Your task to perform on an android device: Do I have any events this weekend? Image 0: 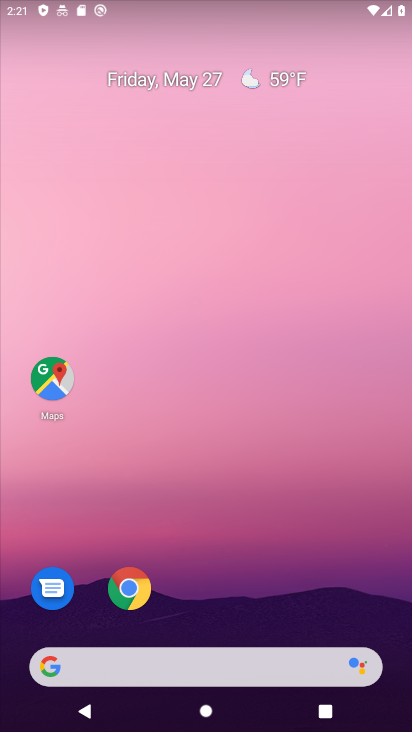
Step 0: drag from (270, 698) to (223, 307)
Your task to perform on an android device: Do I have any events this weekend? Image 1: 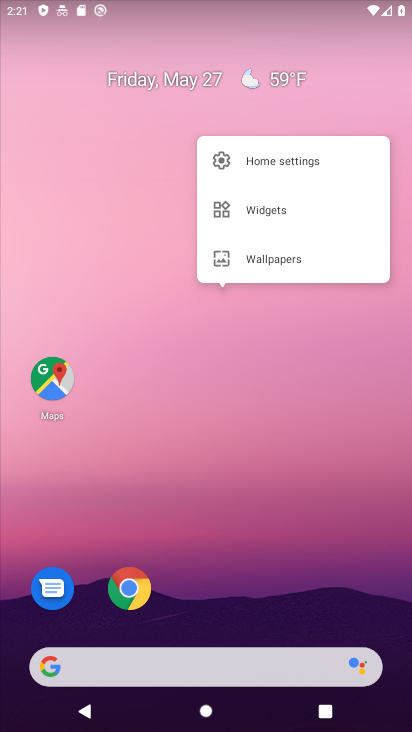
Step 1: click (164, 425)
Your task to perform on an android device: Do I have any events this weekend? Image 2: 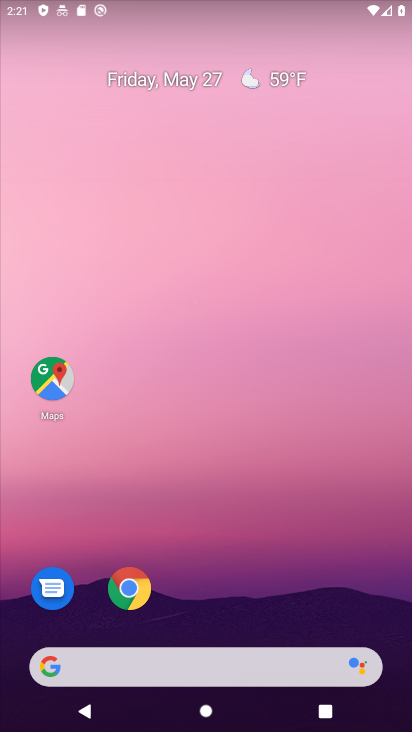
Step 2: drag from (205, 323) to (93, 187)
Your task to perform on an android device: Do I have any events this weekend? Image 3: 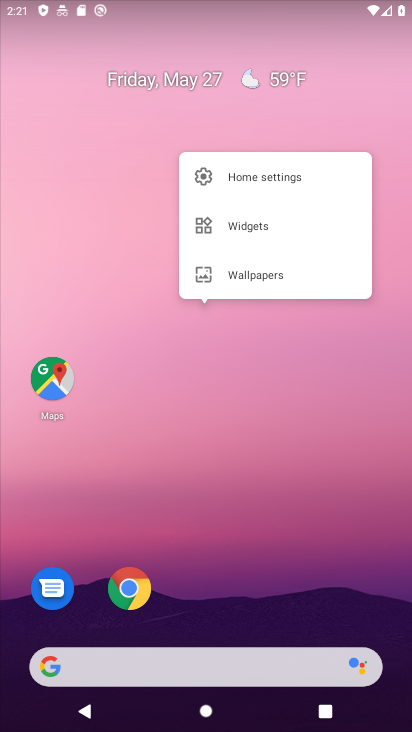
Step 3: drag from (222, 518) to (26, 106)
Your task to perform on an android device: Do I have any events this weekend? Image 4: 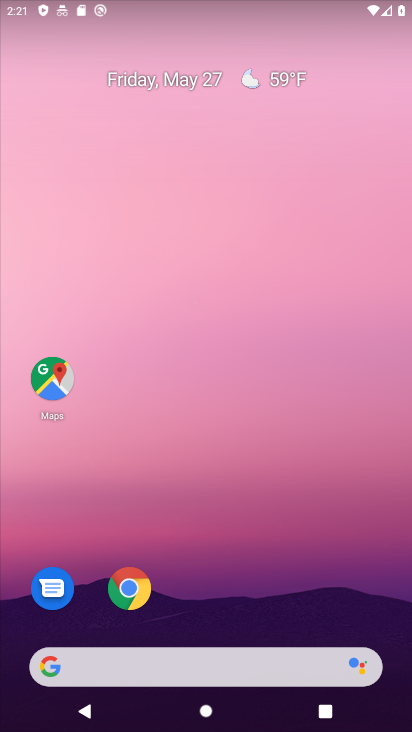
Step 4: drag from (167, 164) to (159, 112)
Your task to perform on an android device: Do I have any events this weekend? Image 5: 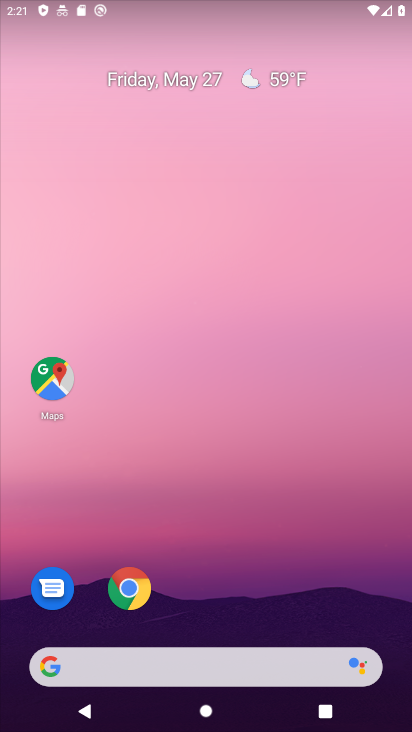
Step 5: drag from (207, 526) to (149, 117)
Your task to perform on an android device: Do I have any events this weekend? Image 6: 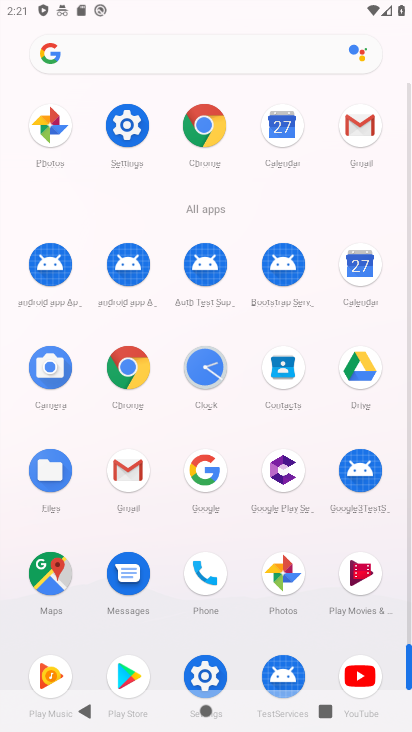
Step 6: click (360, 261)
Your task to perform on an android device: Do I have any events this weekend? Image 7: 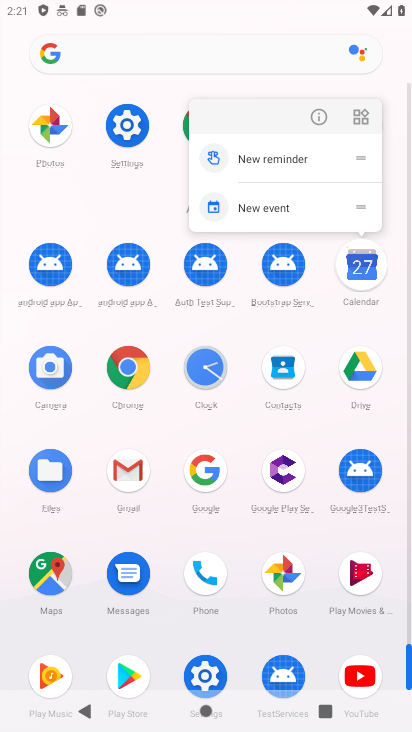
Step 7: click (360, 261)
Your task to perform on an android device: Do I have any events this weekend? Image 8: 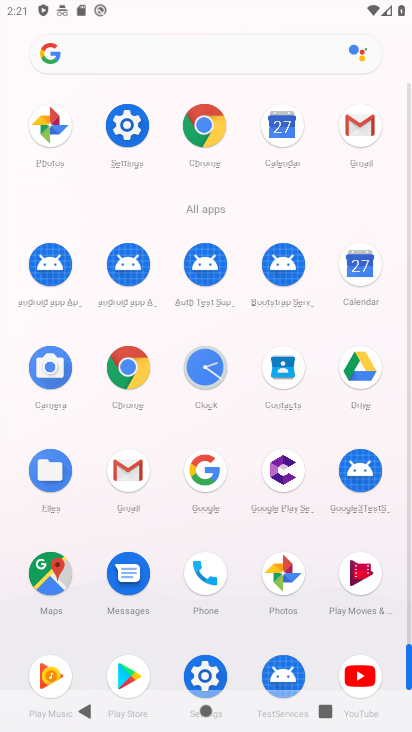
Step 8: click (360, 282)
Your task to perform on an android device: Do I have any events this weekend? Image 9: 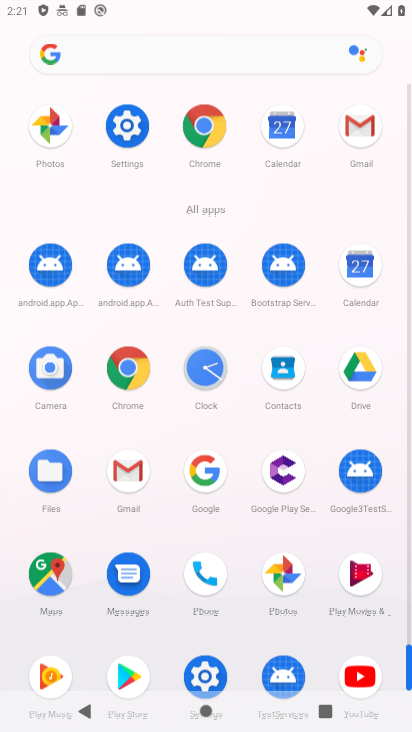
Step 9: click (361, 283)
Your task to perform on an android device: Do I have any events this weekend? Image 10: 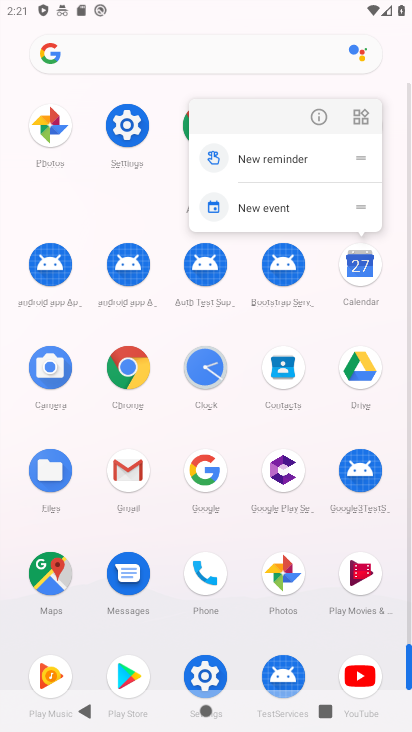
Step 10: click (362, 264)
Your task to perform on an android device: Do I have any events this weekend? Image 11: 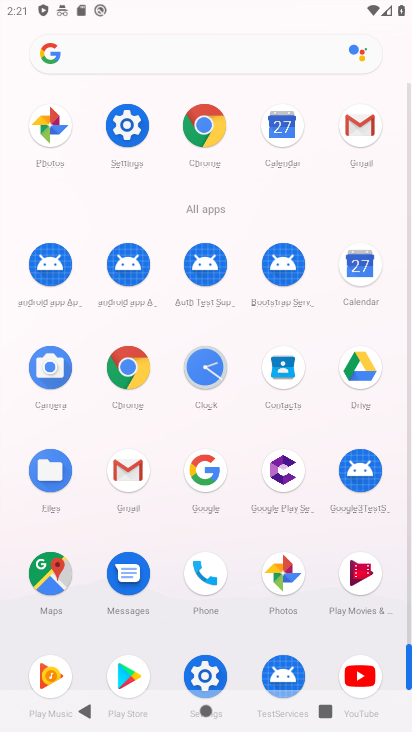
Step 11: click (364, 267)
Your task to perform on an android device: Do I have any events this weekend? Image 12: 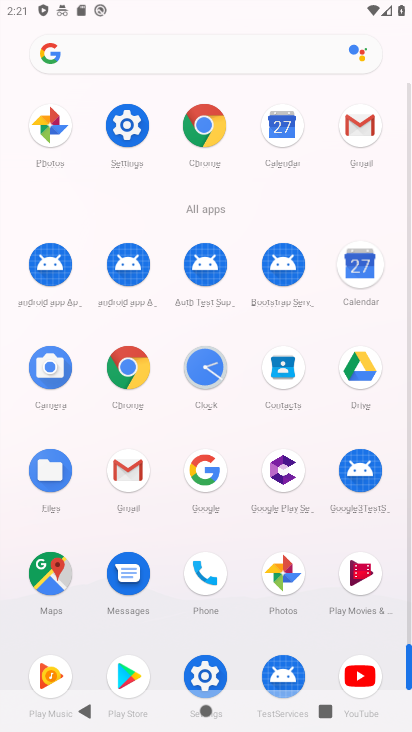
Step 12: click (363, 270)
Your task to perform on an android device: Do I have any events this weekend? Image 13: 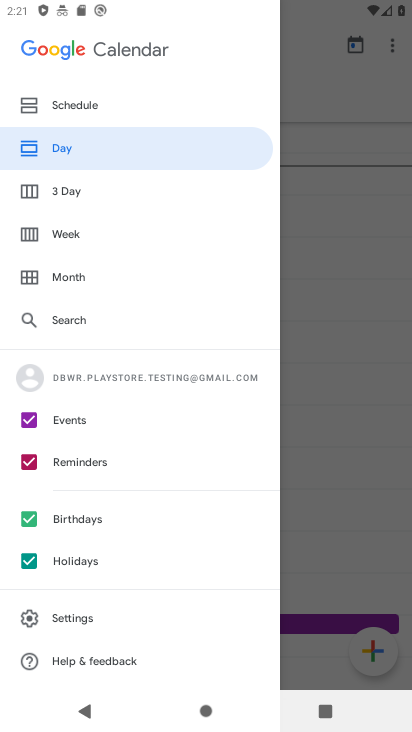
Step 13: click (355, 271)
Your task to perform on an android device: Do I have any events this weekend? Image 14: 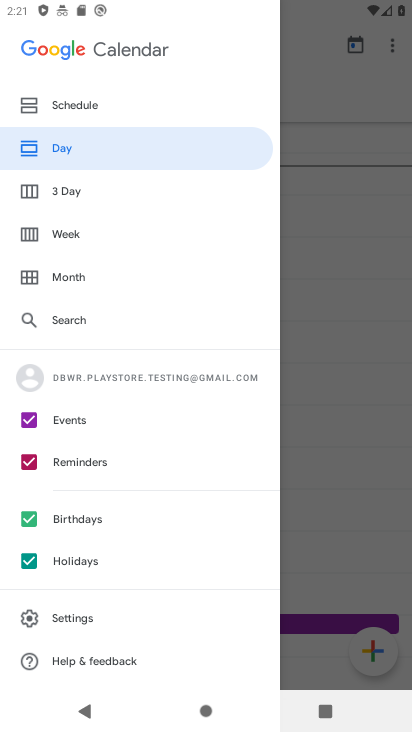
Step 14: click (355, 271)
Your task to perform on an android device: Do I have any events this weekend? Image 15: 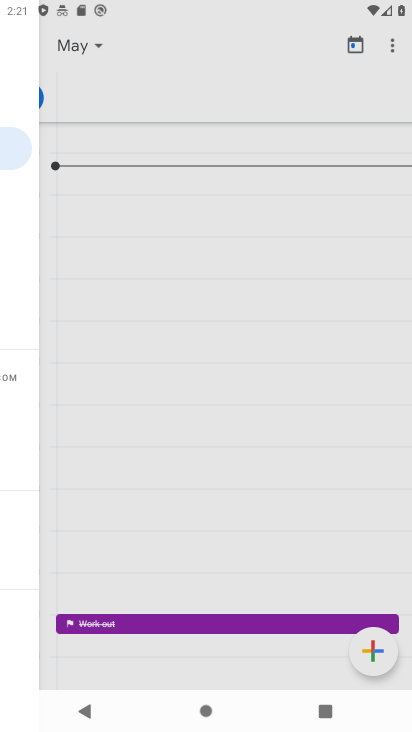
Step 15: click (355, 271)
Your task to perform on an android device: Do I have any events this weekend? Image 16: 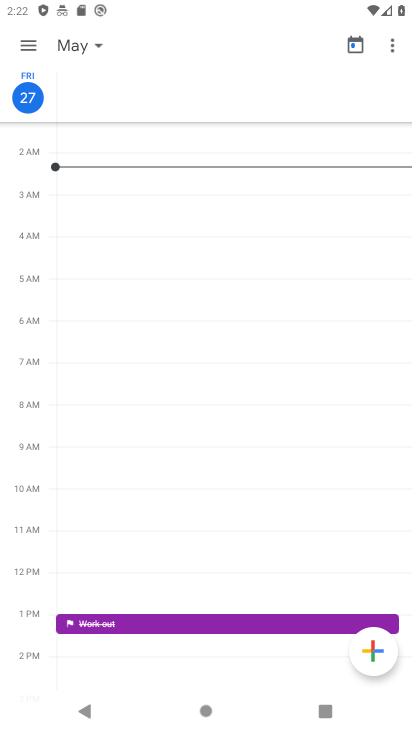
Step 16: press back button
Your task to perform on an android device: Do I have any events this weekend? Image 17: 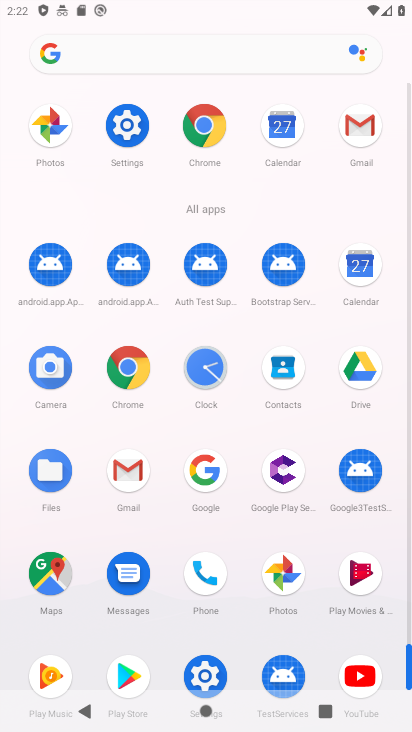
Step 17: click (349, 258)
Your task to perform on an android device: Do I have any events this weekend? Image 18: 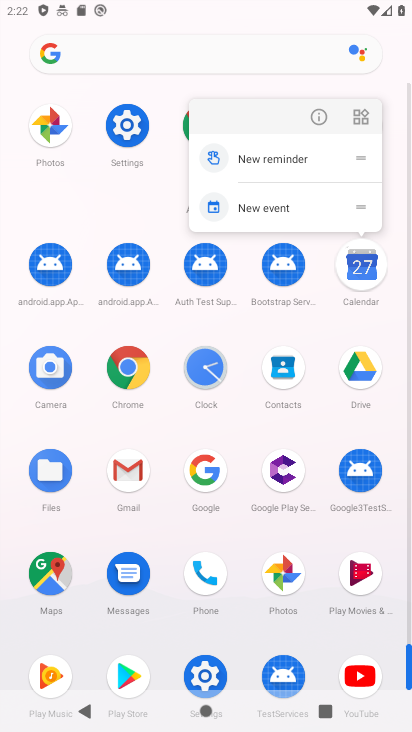
Step 18: click (348, 259)
Your task to perform on an android device: Do I have any events this weekend? Image 19: 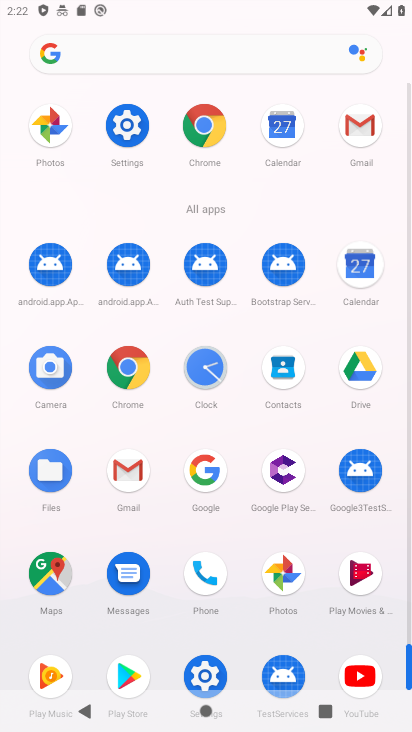
Step 19: click (352, 261)
Your task to perform on an android device: Do I have any events this weekend? Image 20: 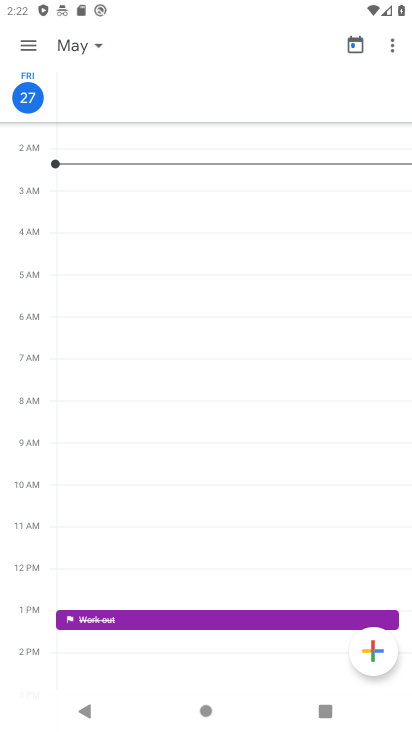
Step 20: click (31, 47)
Your task to perform on an android device: Do I have any events this weekend? Image 21: 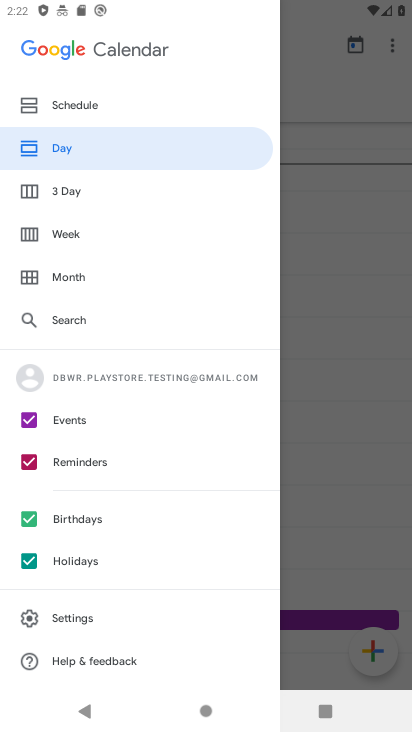
Step 21: click (351, 230)
Your task to perform on an android device: Do I have any events this weekend? Image 22: 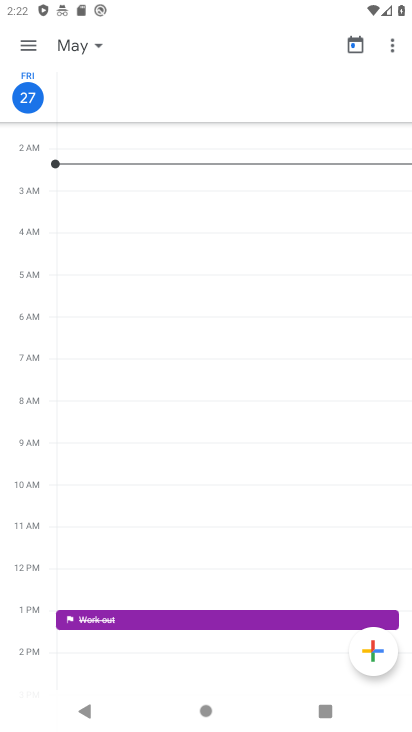
Step 22: click (19, 26)
Your task to perform on an android device: Do I have any events this weekend? Image 23: 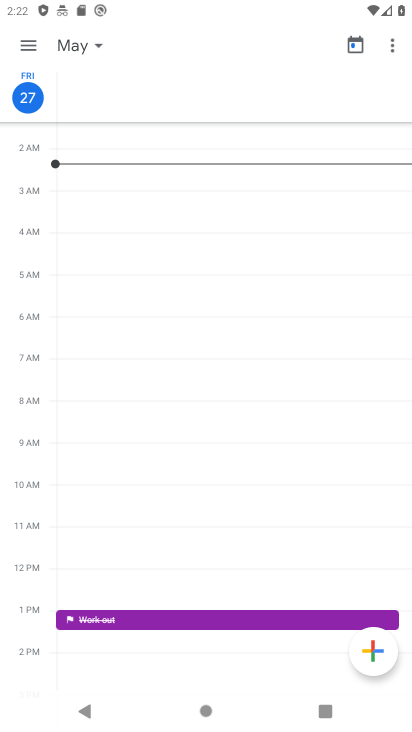
Step 23: click (24, 38)
Your task to perform on an android device: Do I have any events this weekend? Image 24: 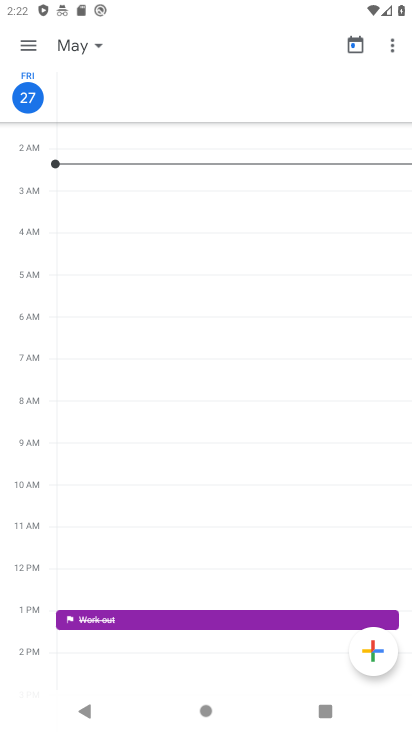
Step 24: click (32, 44)
Your task to perform on an android device: Do I have any events this weekend? Image 25: 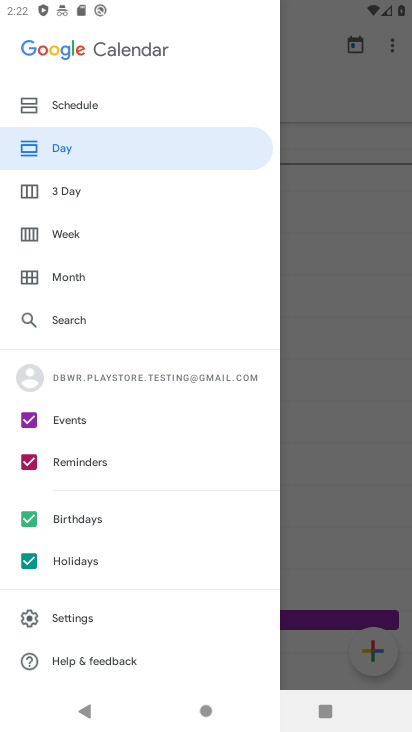
Step 25: click (65, 92)
Your task to perform on an android device: Do I have any events this weekend? Image 26: 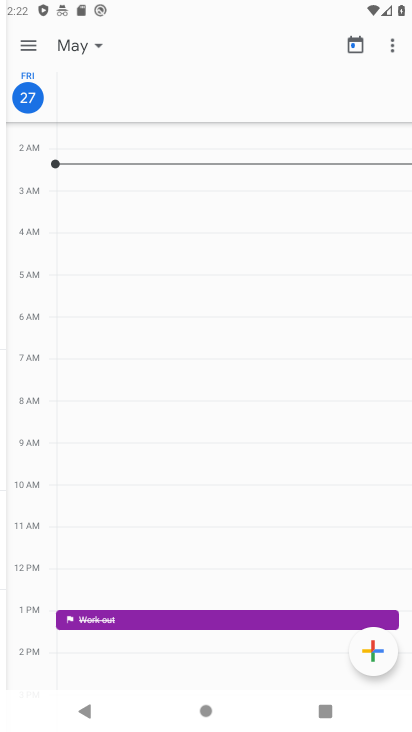
Step 26: click (64, 103)
Your task to perform on an android device: Do I have any events this weekend? Image 27: 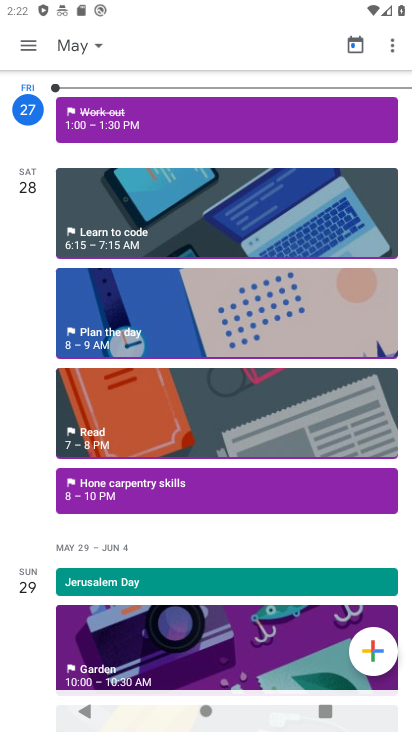
Step 27: click (94, 48)
Your task to perform on an android device: Do I have any events this weekend? Image 28: 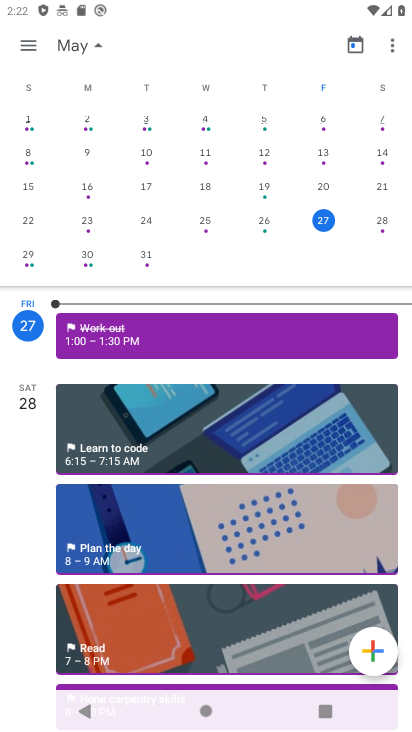
Step 28: click (96, 46)
Your task to perform on an android device: Do I have any events this weekend? Image 29: 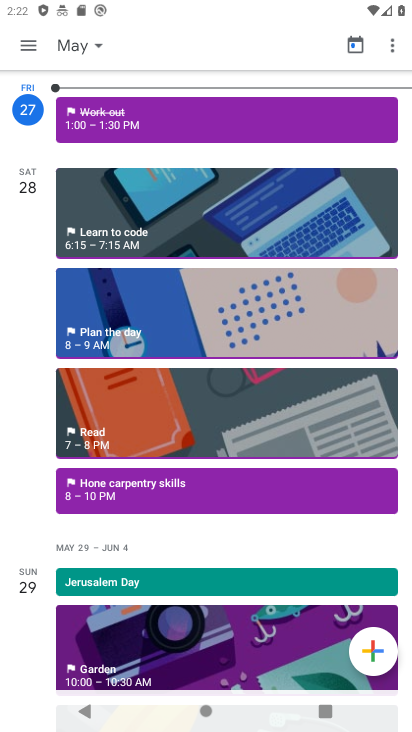
Step 29: drag from (273, 171) to (76, 215)
Your task to perform on an android device: Do I have any events this weekend? Image 30: 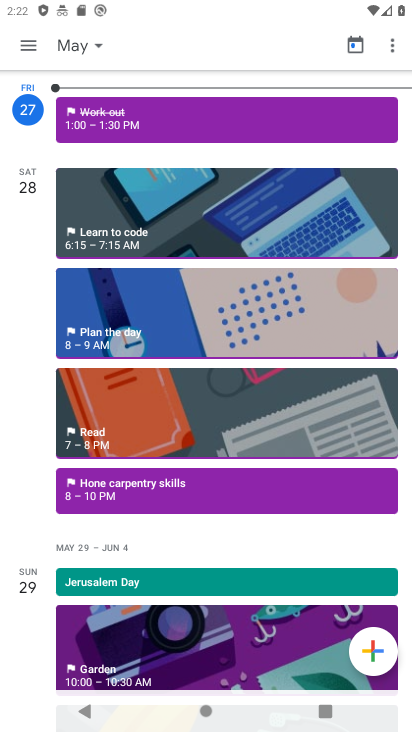
Step 30: click (98, 43)
Your task to perform on an android device: Do I have any events this weekend? Image 31: 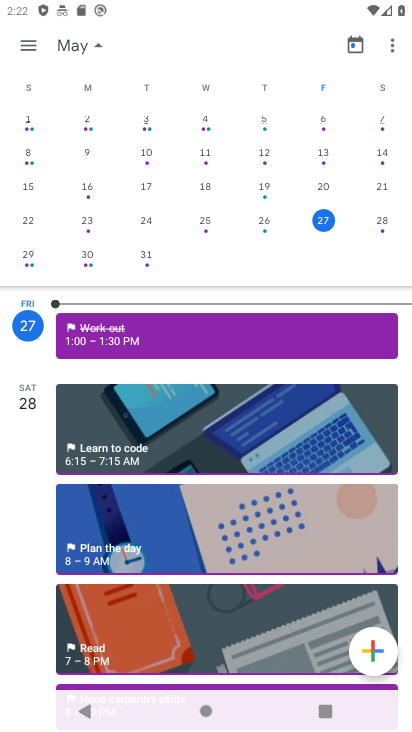
Step 31: drag from (248, 178) to (60, 180)
Your task to perform on an android device: Do I have any events this weekend? Image 32: 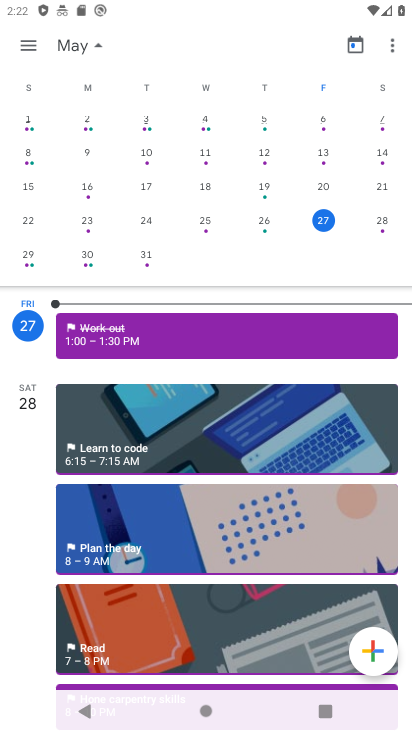
Step 32: drag from (279, 164) to (90, 187)
Your task to perform on an android device: Do I have any events this weekend? Image 33: 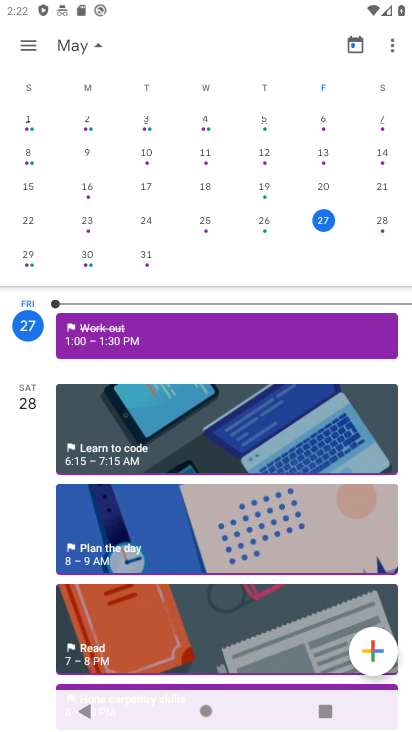
Step 33: drag from (328, 163) to (35, 188)
Your task to perform on an android device: Do I have any events this weekend? Image 34: 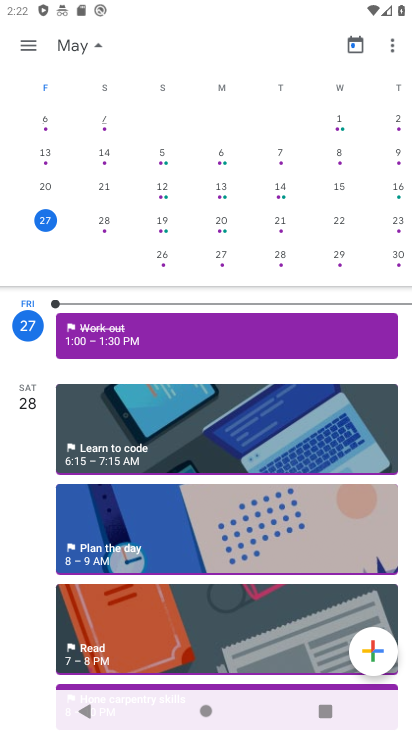
Step 34: drag from (190, 176) to (114, 170)
Your task to perform on an android device: Do I have any events this weekend? Image 35: 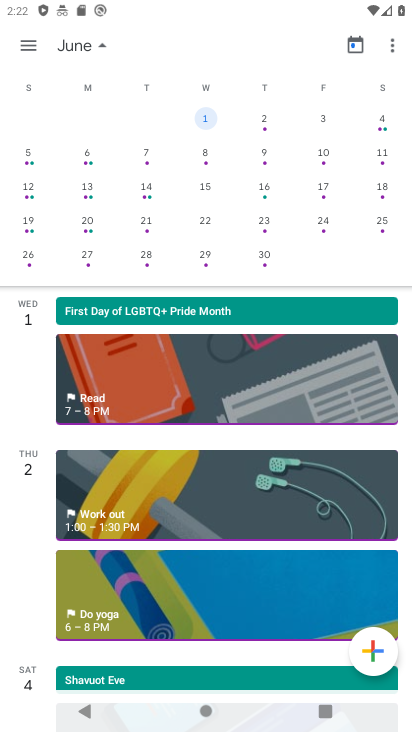
Step 35: drag from (238, 174) to (23, 176)
Your task to perform on an android device: Do I have any events this weekend? Image 36: 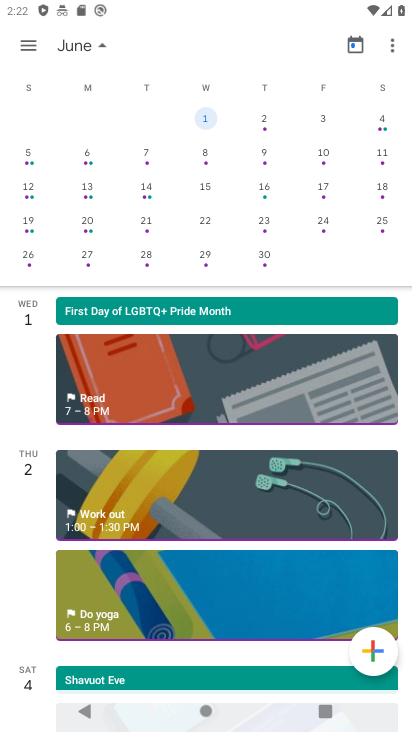
Step 36: drag from (69, 196) to (398, 261)
Your task to perform on an android device: Do I have any events this weekend? Image 37: 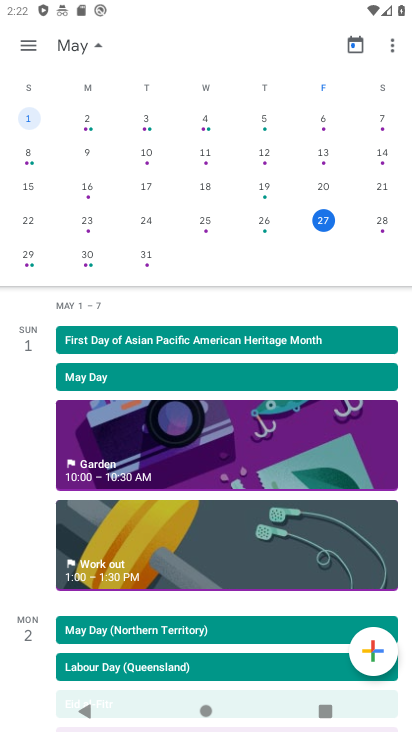
Step 37: click (386, 227)
Your task to perform on an android device: Do I have any events this weekend? Image 38: 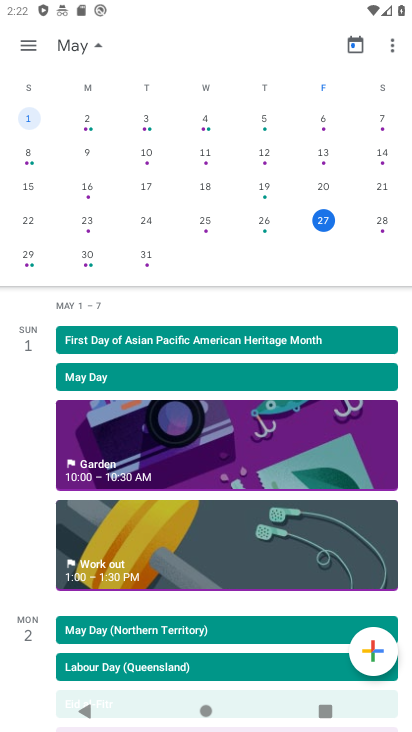
Step 38: click (379, 228)
Your task to perform on an android device: Do I have any events this weekend? Image 39: 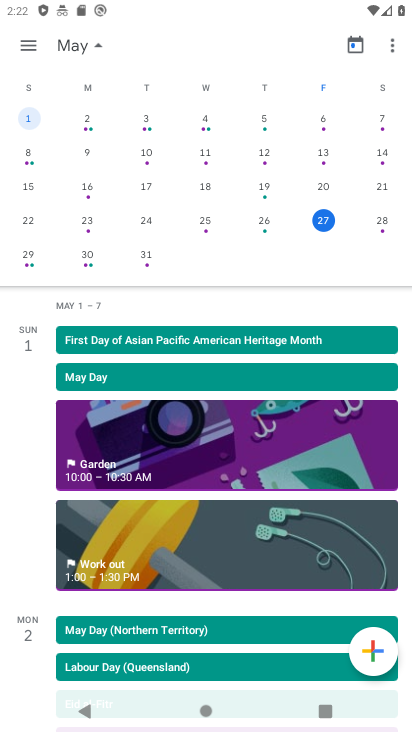
Step 39: click (379, 228)
Your task to perform on an android device: Do I have any events this weekend? Image 40: 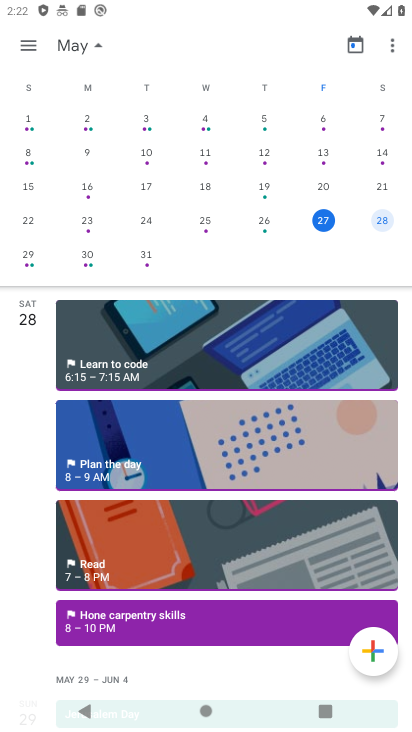
Step 40: click (379, 228)
Your task to perform on an android device: Do I have any events this weekend? Image 41: 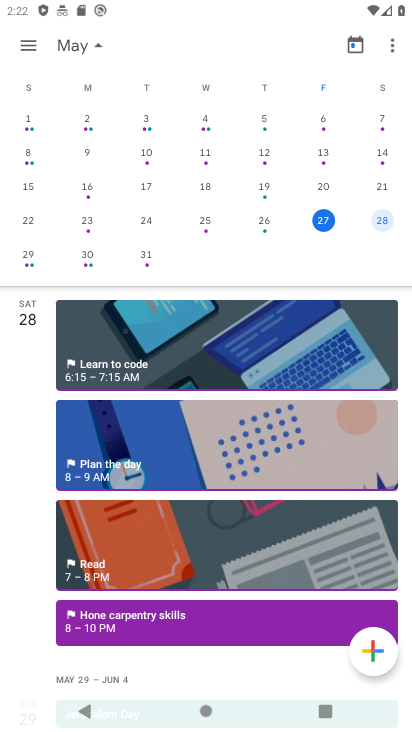
Step 41: click (386, 208)
Your task to perform on an android device: Do I have any events this weekend? Image 42: 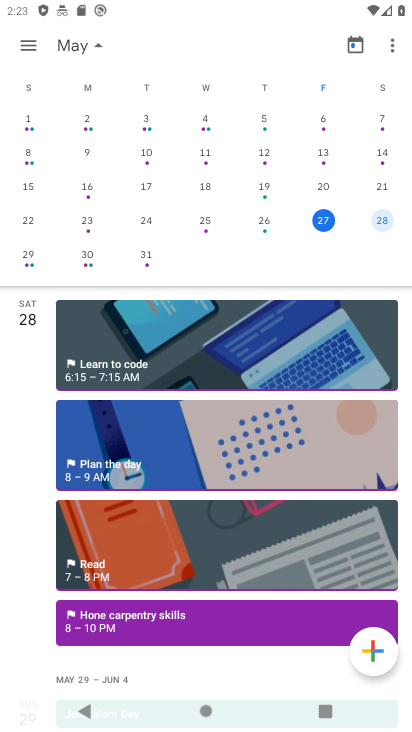
Step 42: click (379, 220)
Your task to perform on an android device: Do I have any events this weekend? Image 43: 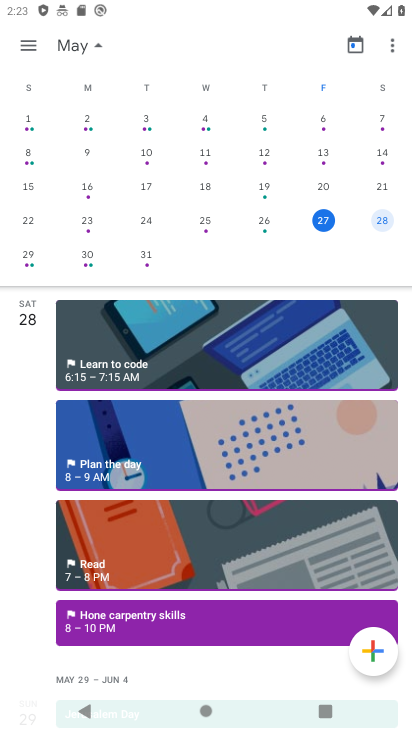
Step 43: click (378, 221)
Your task to perform on an android device: Do I have any events this weekend? Image 44: 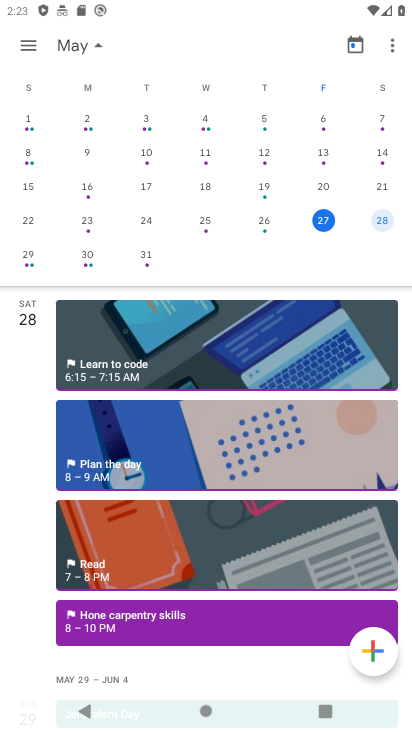
Step 44: click (378, 221)
Your task to perform on an android device: Do I have any events this weekend? Image 45: 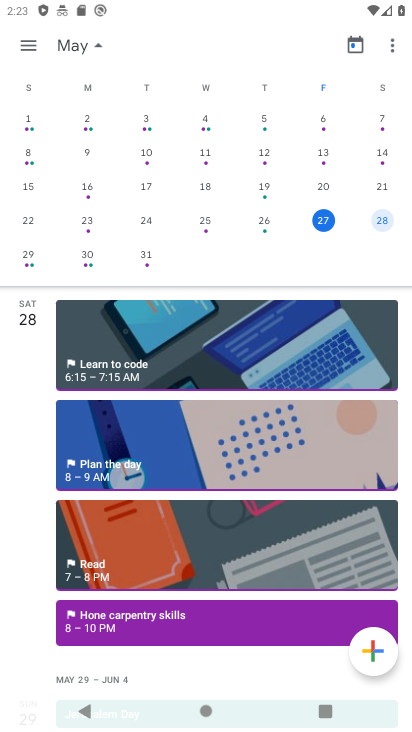
Step 45: task complete